Your task to perform on an android device: Open Google Image 0: 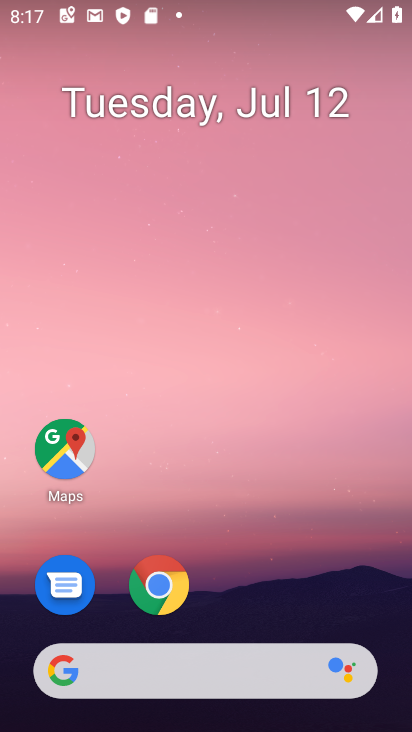
Step 0: drag from (214, 557) to (263, 40)
Your task to perform on an android device: Open Google Image 1: 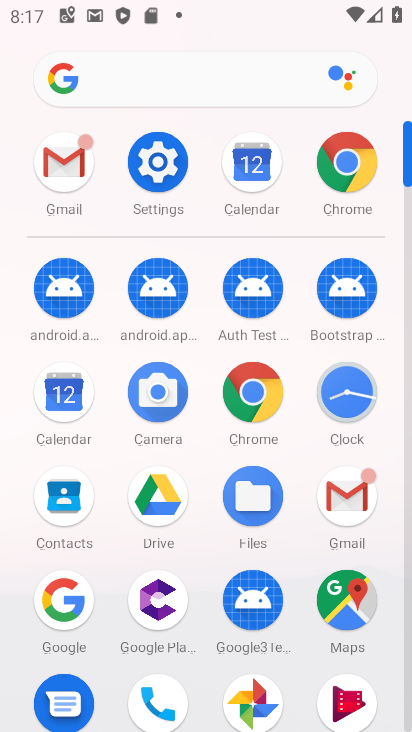
Step 1: click (58, 606)
Your task to perform on an android device: Open Google Image 2: 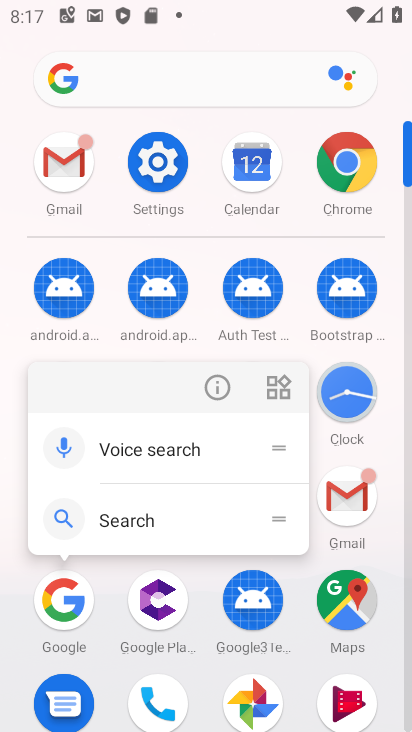
Step 2: click (60, 604)
Your task to perform on an android device: Open Google Image 3: 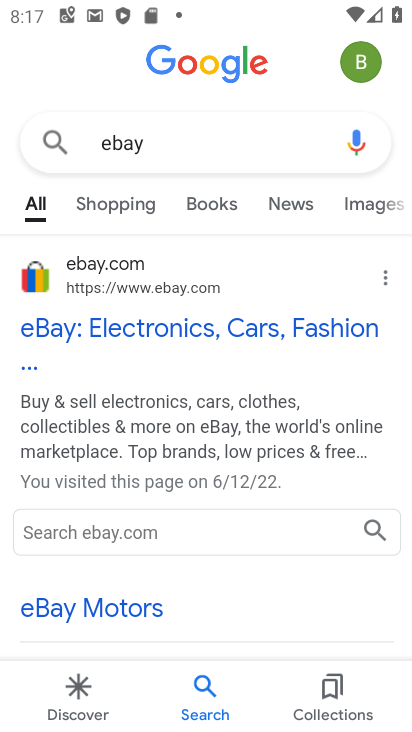
Step 3: click (152, 136)
Your task to perform on an android device: Open Google Image 4: 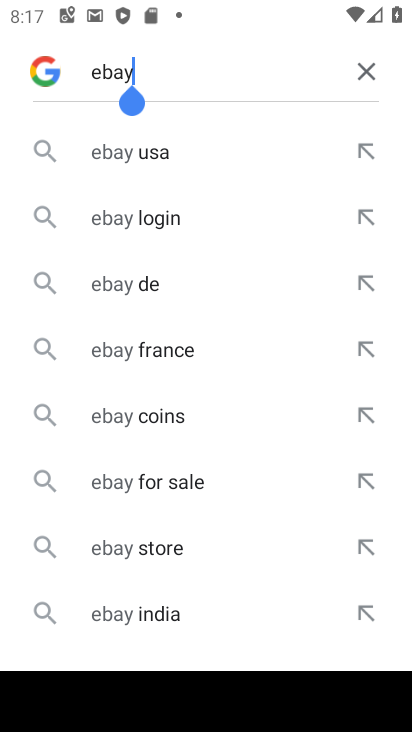
Step 4: click (370, 64)
Your task to perform on an android device: Open Google Image 5: 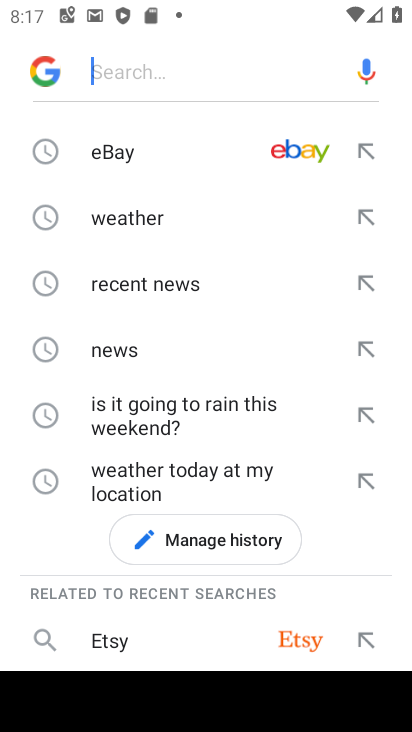
Step 5: task complete